Your task to perform on an android device: turn off airplane mode Image 0: 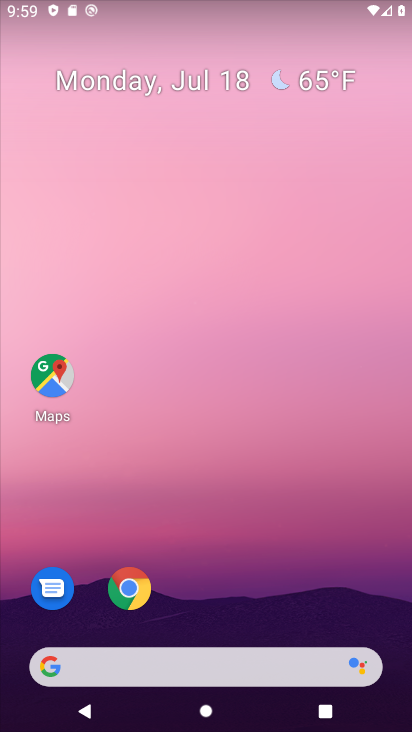
Step 0: drag from (248, 0) to (251, 507)
Your task to perform on an android device: turn off airplane mode Image 1: 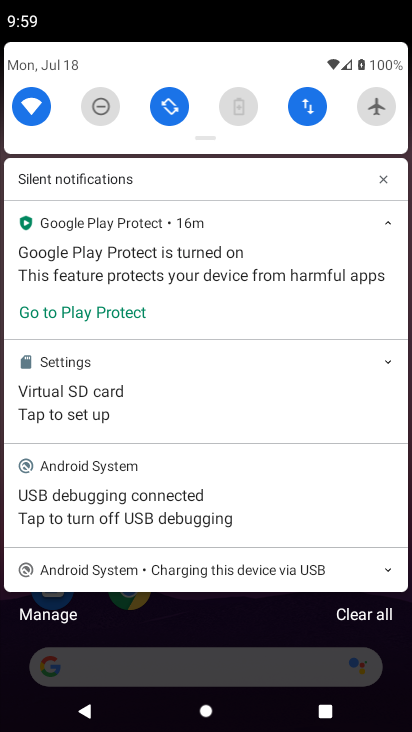
Step 1: task complete